Your task to perform on an android device: snooze an email in the gmail app Image 0: 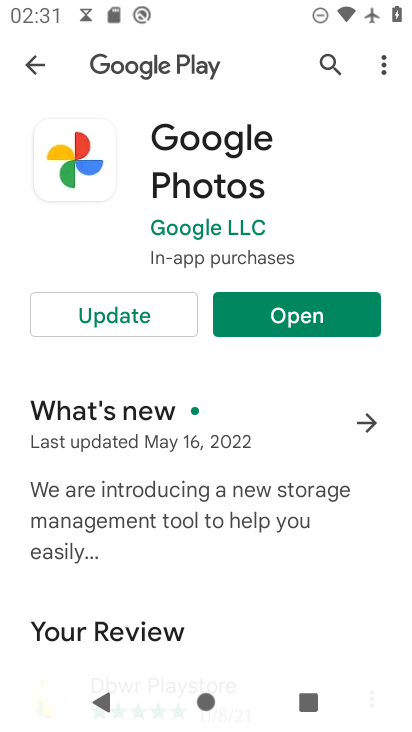
Step 0: press home button
Your task to perform on an android device: snooze an email in the gmail app Image 1: 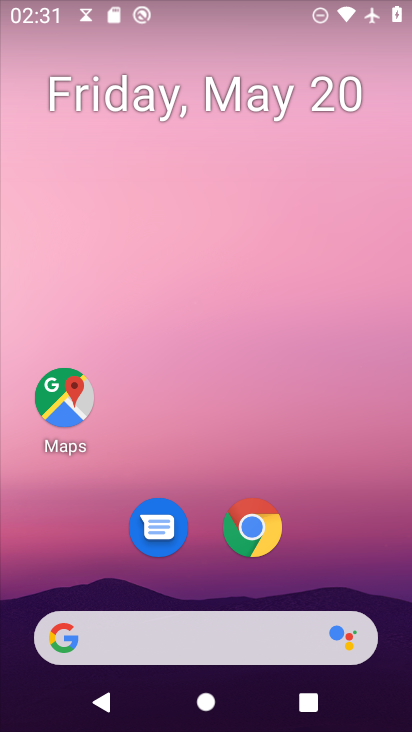
Step 1: drag from (179, 633) to (293, 100)
Your task to perform on an android device: snooze an email in the gmail app Image 2: 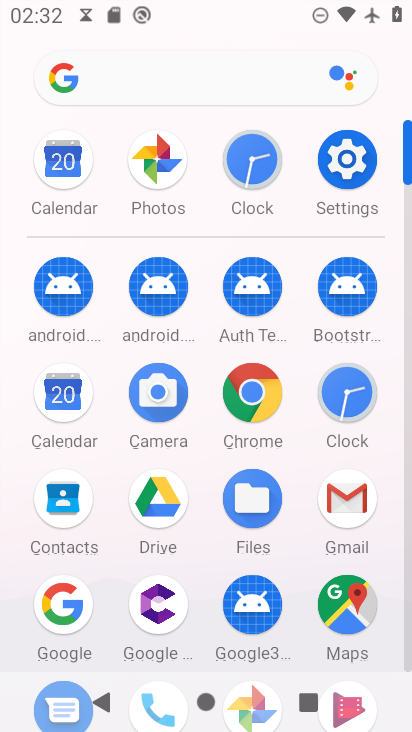
Step 2: click (344, 505)
Your task to perform on an android device: snooze an email in the gmail app Image 3: 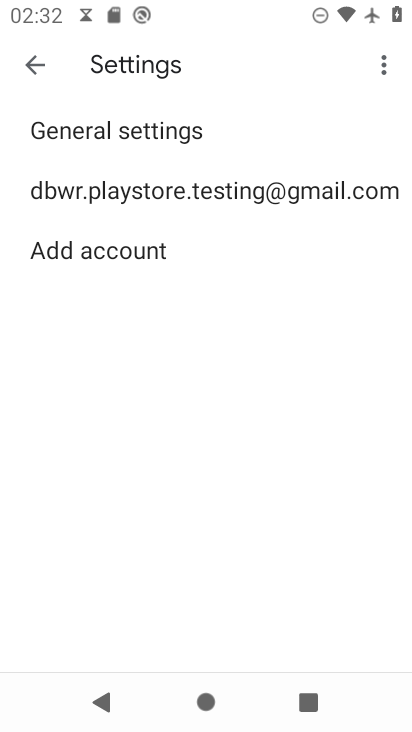
Step 3: click (45, 68)
Your task to perform on an android device: snooze an email in the gmail app Image 4: 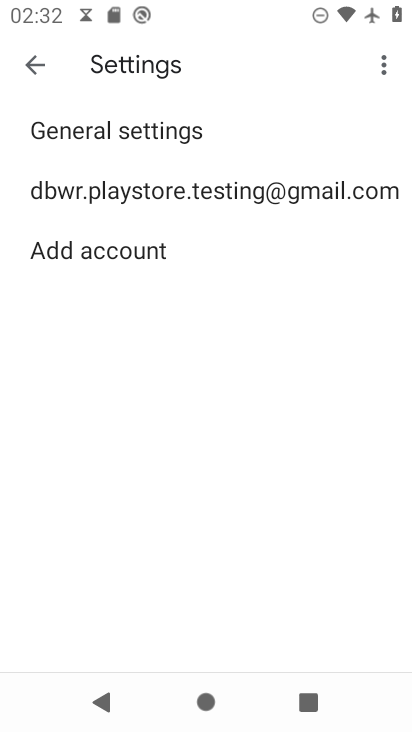
Step 4: click (37, 70)
Your task to perform on an android device: snooze an email in the gmail app Image 5: 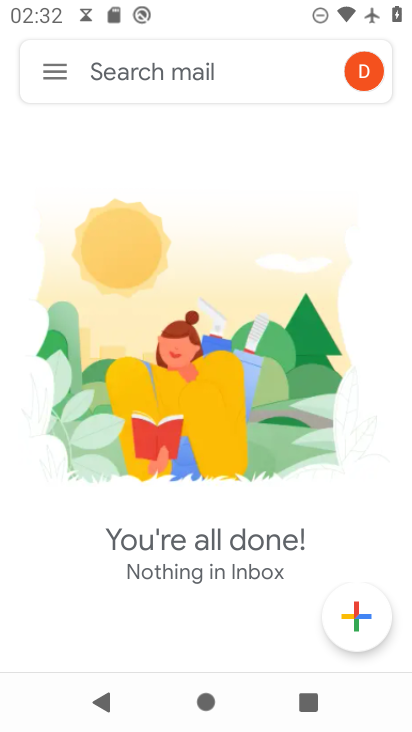
Step 5: task complete